Your task to perform on an android device: Go to calendar. Show me events next week Image 0: 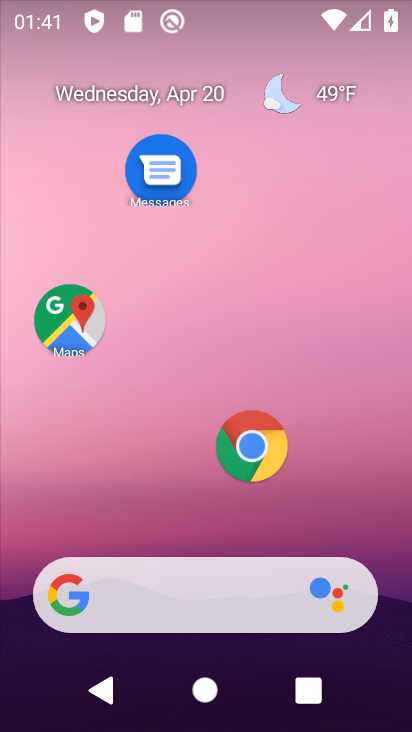
Step 0: drag from (220, 530) to (260, 105)
Your task to perform on an android device: Go to calendar. Show me events next week Image 1: 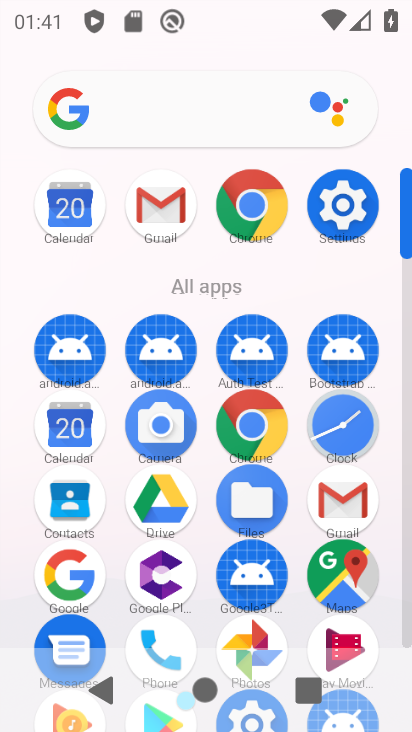
Step 1: click (72, 424)
Your task to perform on an android device: Go to calendar. Show me events next week Image 2: 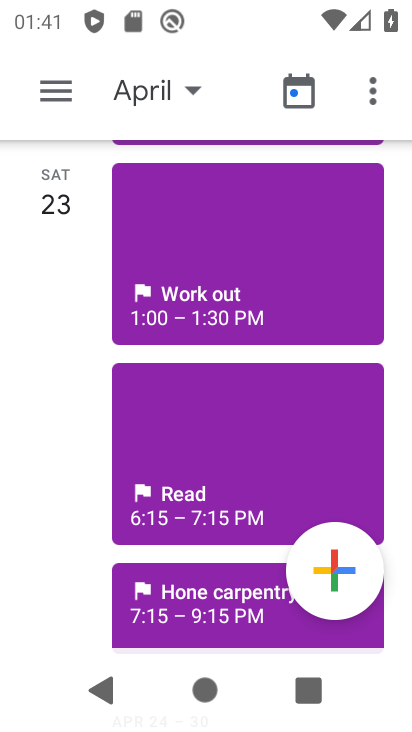
Step 2: click (50, 101)
Your task to perform on an android device: Go to calendar. Show me events next week Image 3: 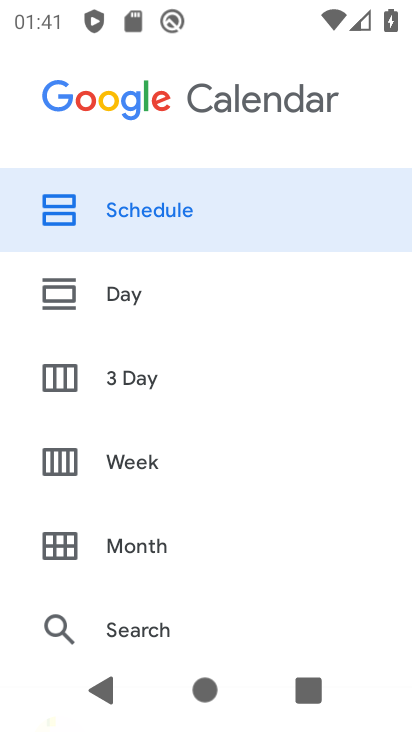
Step 3: click (94, 455)
Your task to perform on an android device: Go to calendar. Show me events next week Image 4: 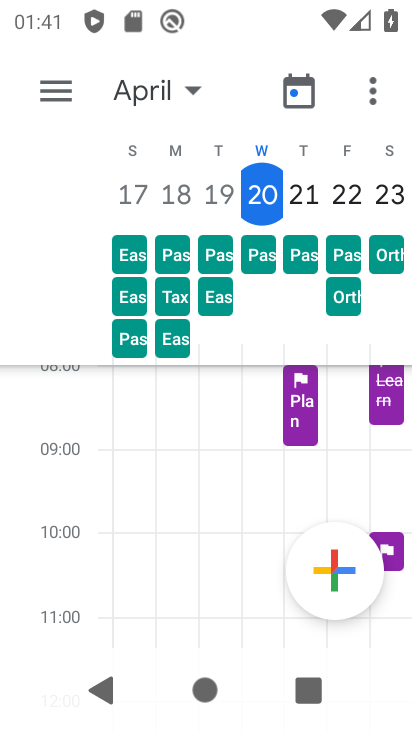
Step 4: click (54, 95)
Your task to perform on an android device: Go to calendar. Show me events next week Image 5: 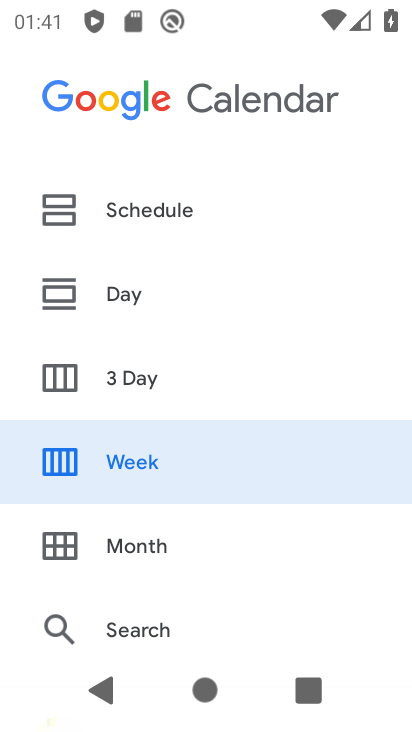
Step 5: drag from (140, 553) to (123, 195)
Your task to perform on an android device: Go to calendar. Show me events next week Image 6: 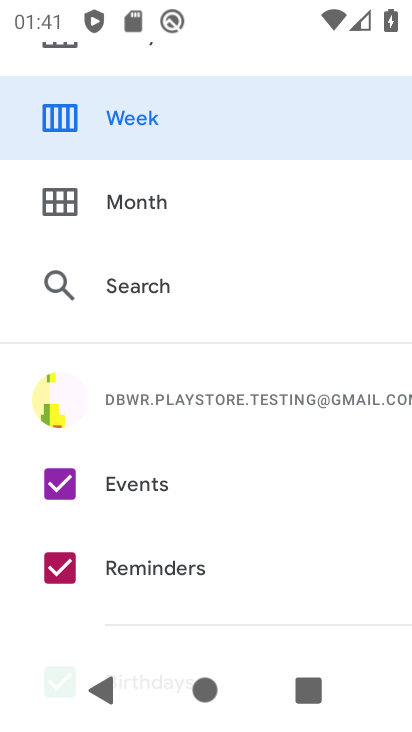
Step 6: click (55, 564)
Your task to perform on an android device: Go to calendar. Show me events next week Image 7: 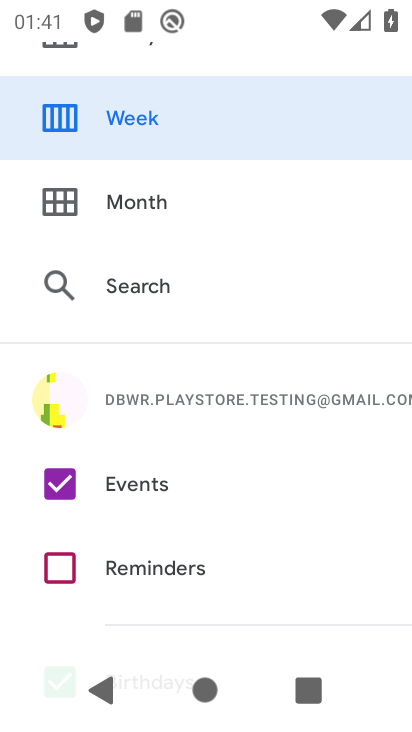
Step 7: drag from (133, 541) to (138, 216)
Your task to perform on an android device: Go to calendar. Show me events next week Image 8: 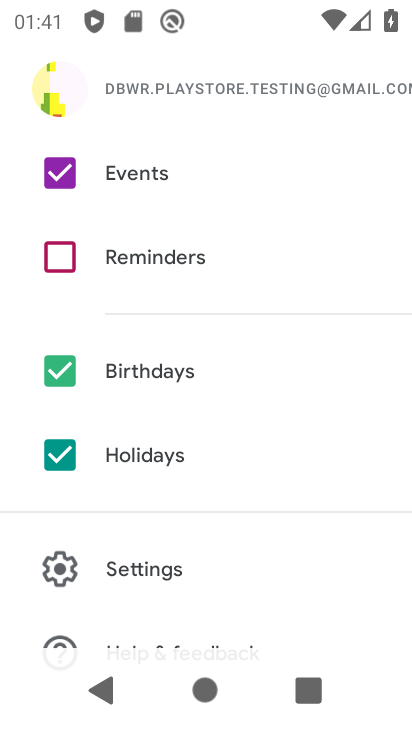
Step 8: click (59, 357)
Your task to perform on an android device: Go to calendar. Show me events next week Image 9: 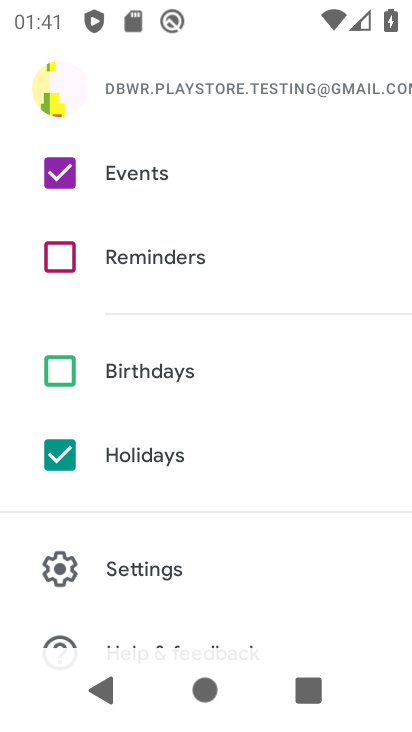
Step 9: click (59, 455)
Your task to perform on an android device: Go to calendar. Show me events next week Image 10: 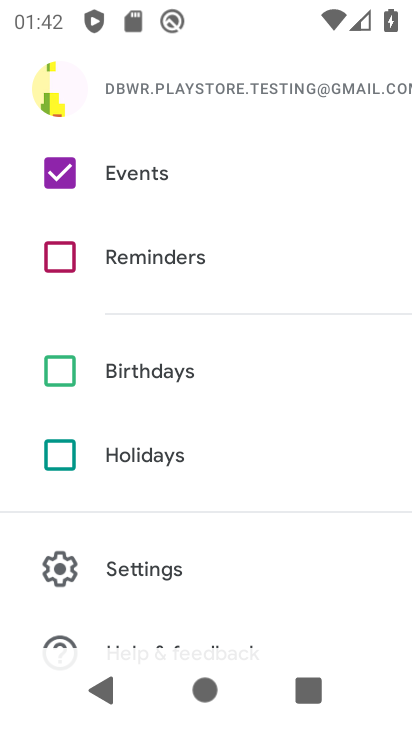
Step 10: drag from (192, 319) to (162, 613)
Your task to perform on an android device: Go to calendar. Show me events next week Image 11: 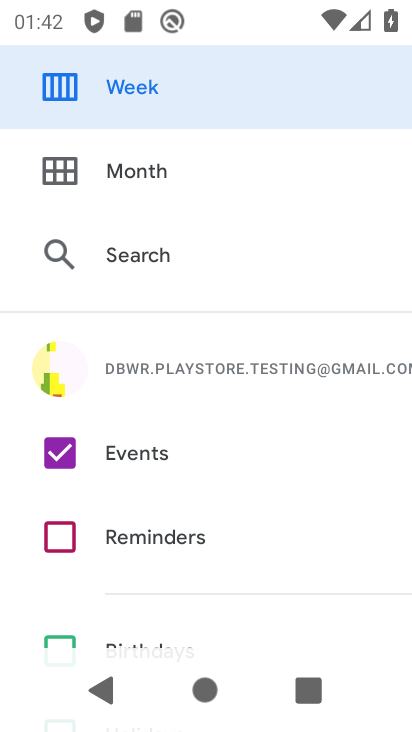
Step 11: drag from (105, 287) to (122, 573)
Your task to perform on an android device: Go to calendar. Show me events next week Image 12: 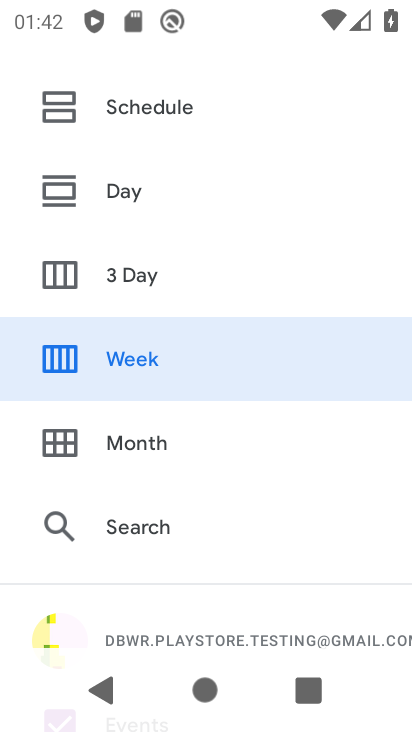
Step 12: click (97, 360)
Your task to perform on an android device: Go to calendar. Show me events next week Image 13: 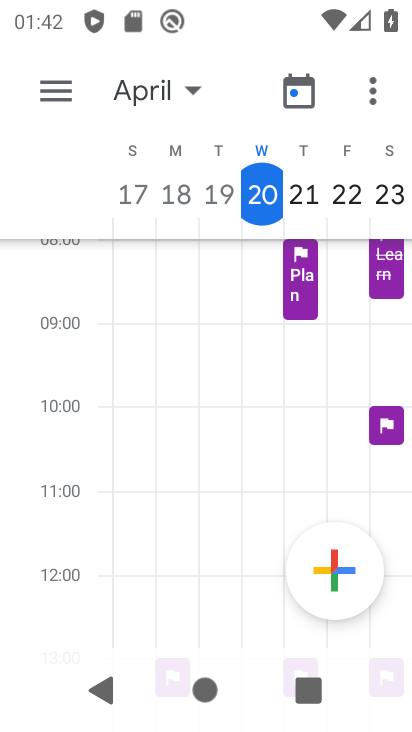
Step 13: drag from (335, 202) to (184, 187)
Your task to perform on an android device: Go to calendar. Show me events next week Image 14: 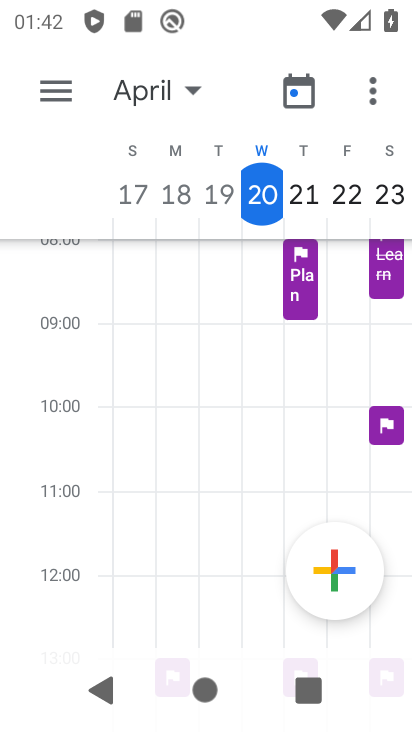
Step 14: drag from (395, 194) to (121, 185)
Your task to perform on an android device: Go to calendar. Show me events next week Image 15: 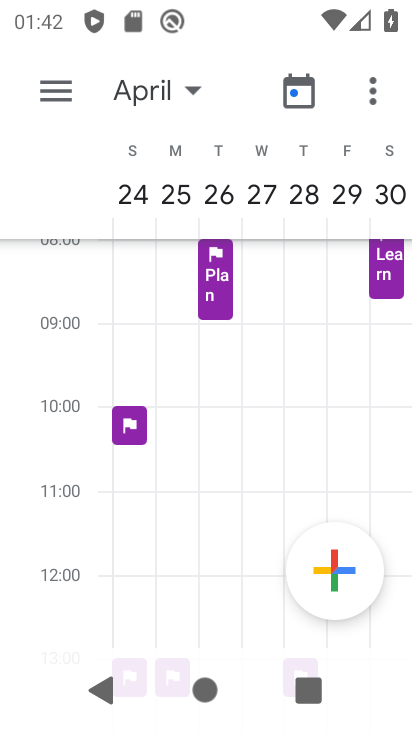
Step 15: click (139, 191)
Your task to perform on an android device: Go to calendar. Show me events next week Image 16: 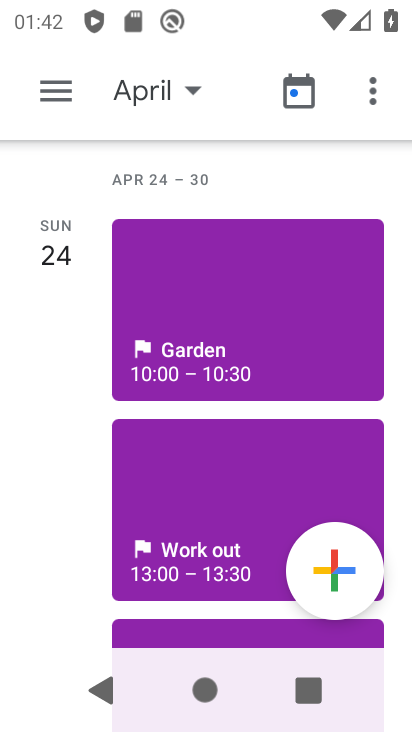
Step 16: task complete